Your task to perform on an android device: turn on the 12-hour format for clock Image 0: 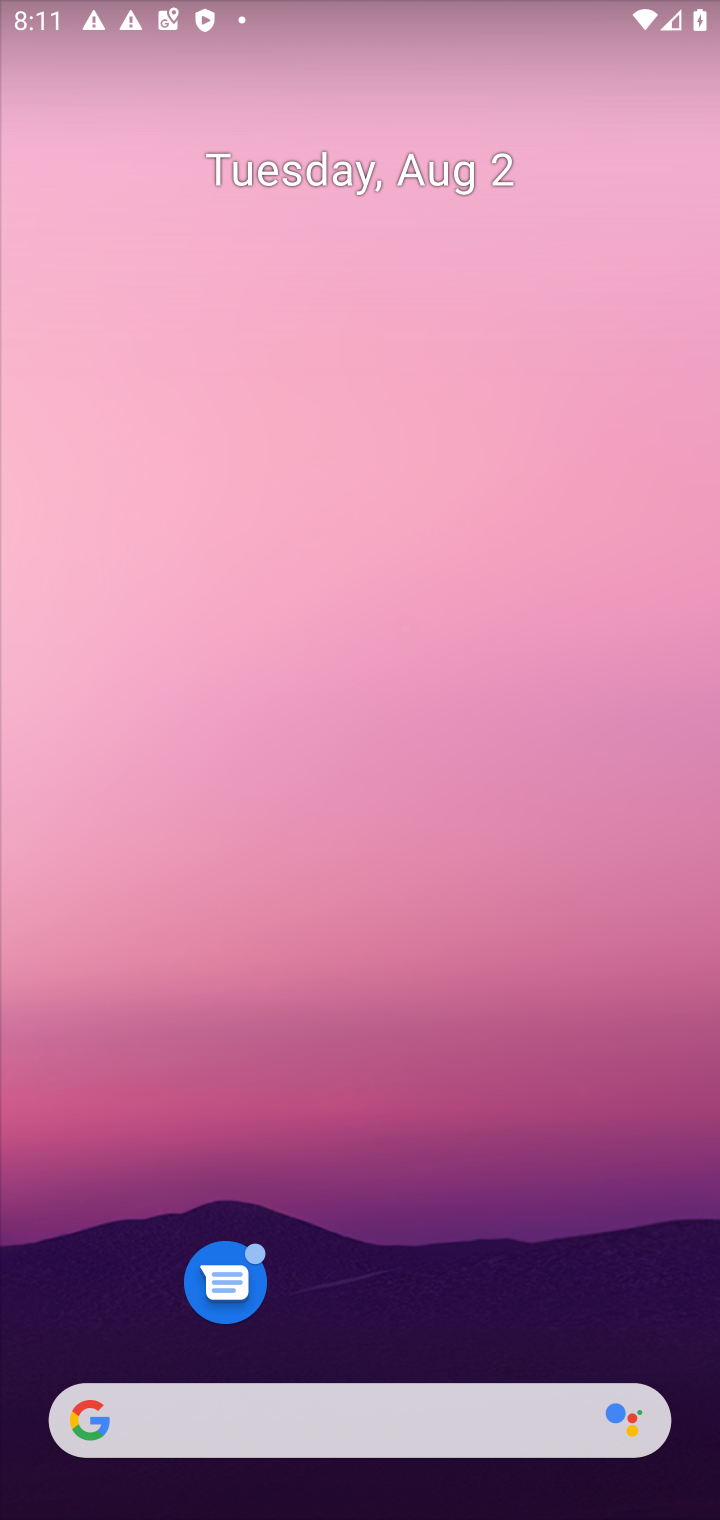
Step 0: drag from (396, 1355) to (403, 7)
Your task to perform on an android device: turn on the 12-hour format for clock Image 1: 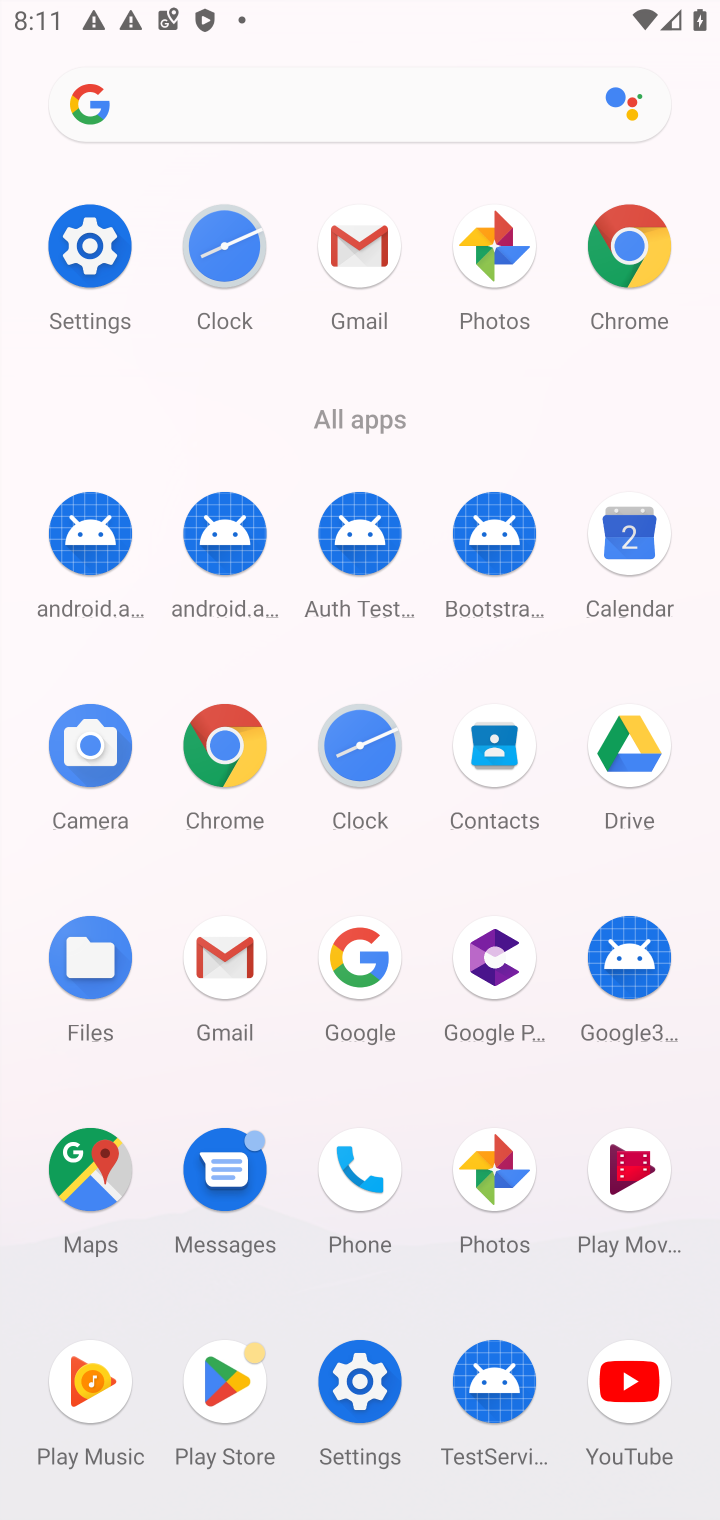
Step 1: click (339, 792)
Your task to perform on an android device: turn on the 12-hour format for clock Image 2: 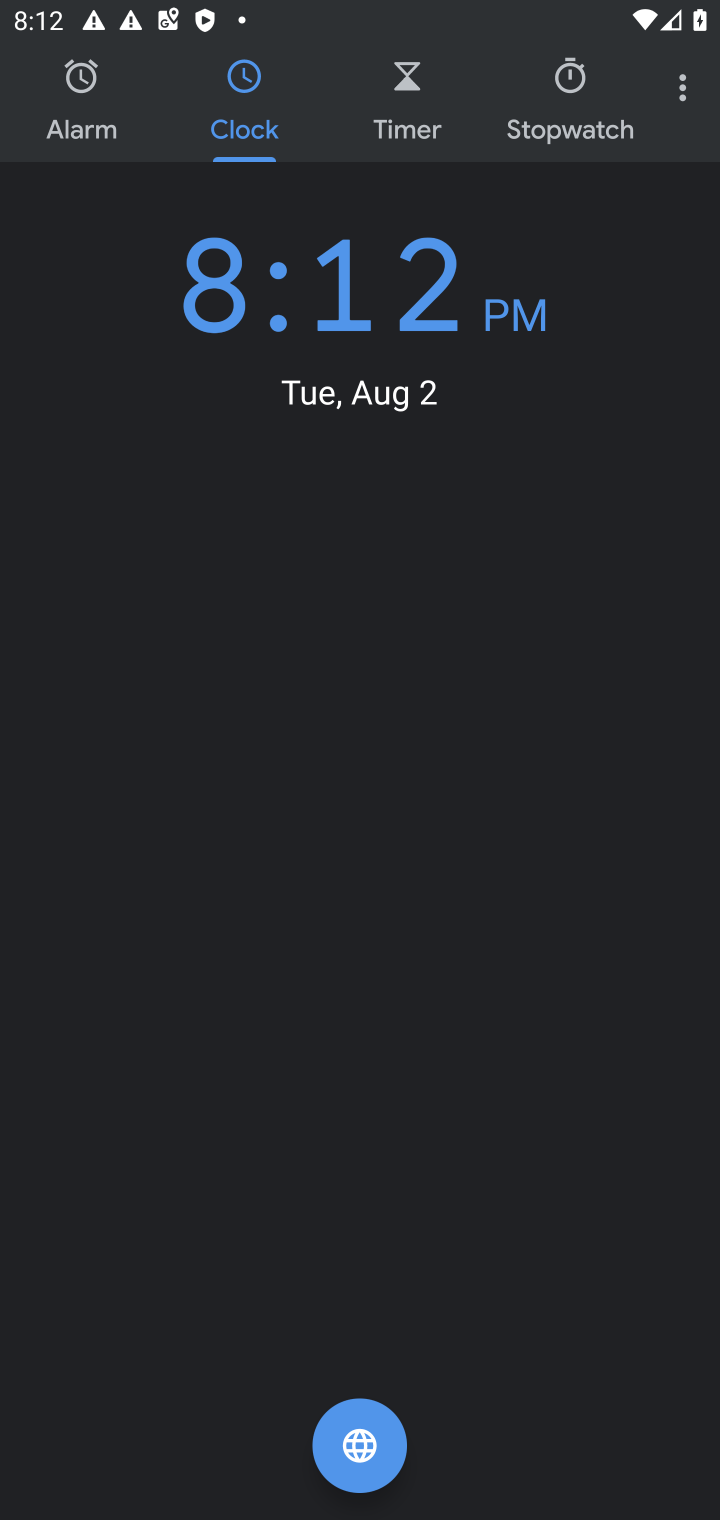
Step 2: click (668, 96)
Your task to perform on an android device: turn on the 12-hour format for clock Image 3: 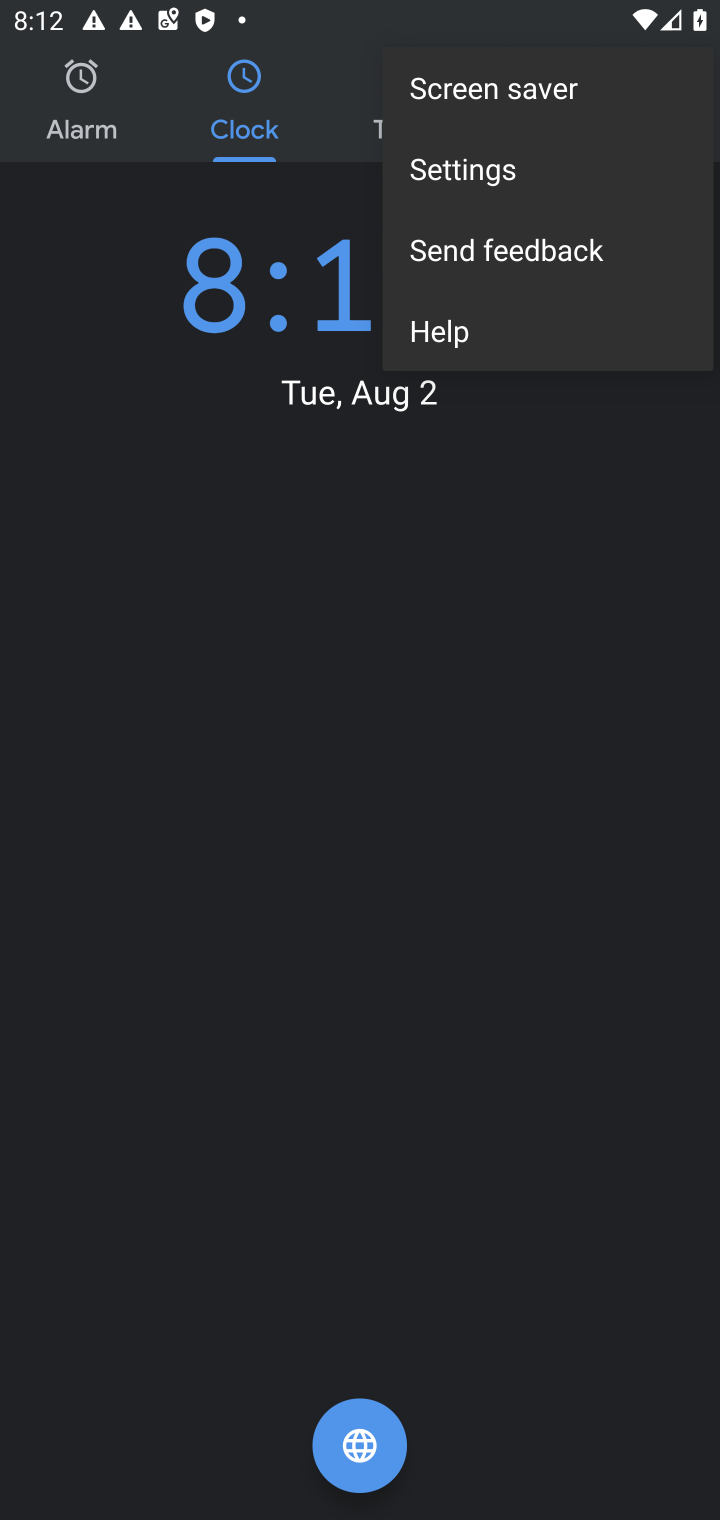
Step 3: click (501, 188)
Your task to perform on an android device: turn on the 12-hour format for clock Image 4: 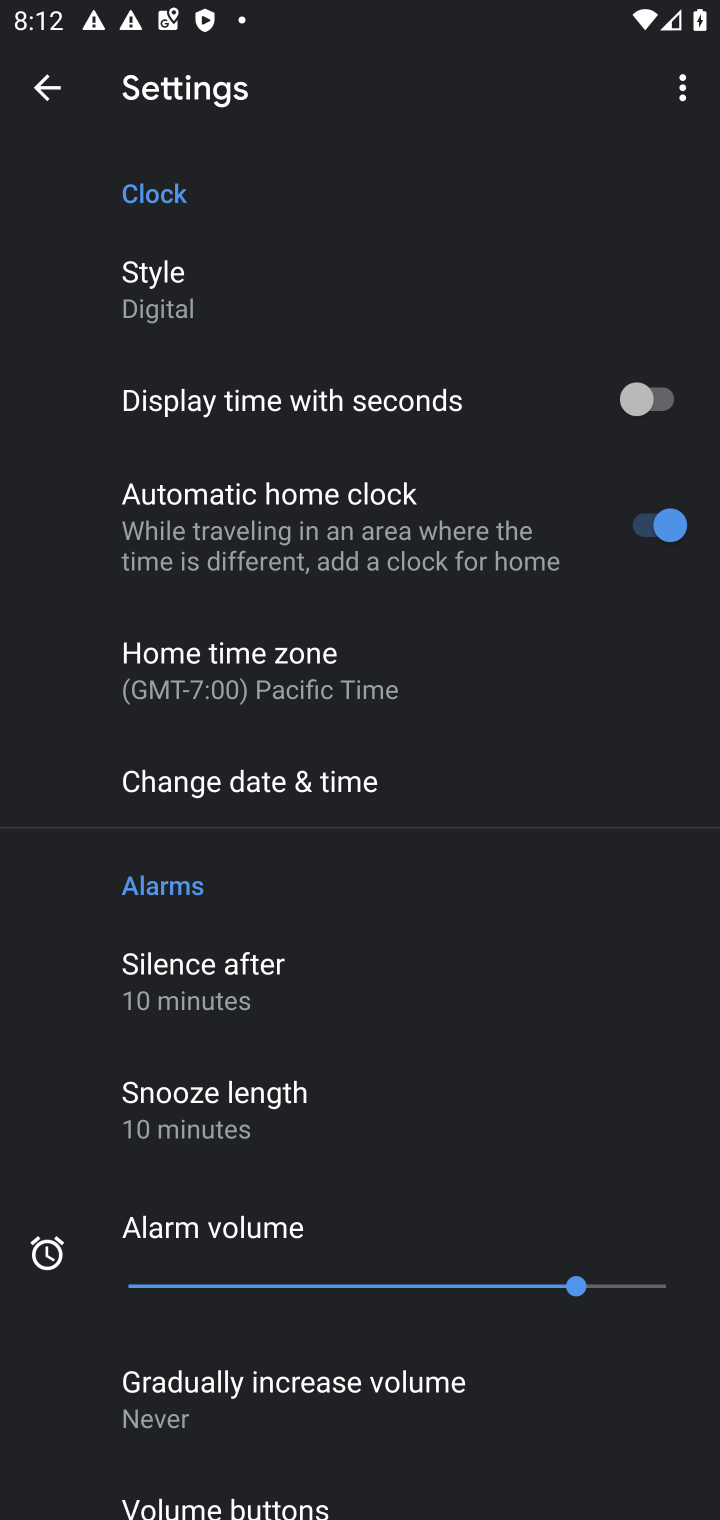
Step 4: click (172, 771)
Your task to perform on an android device: turn on the 12-hour format for clock Image 5: 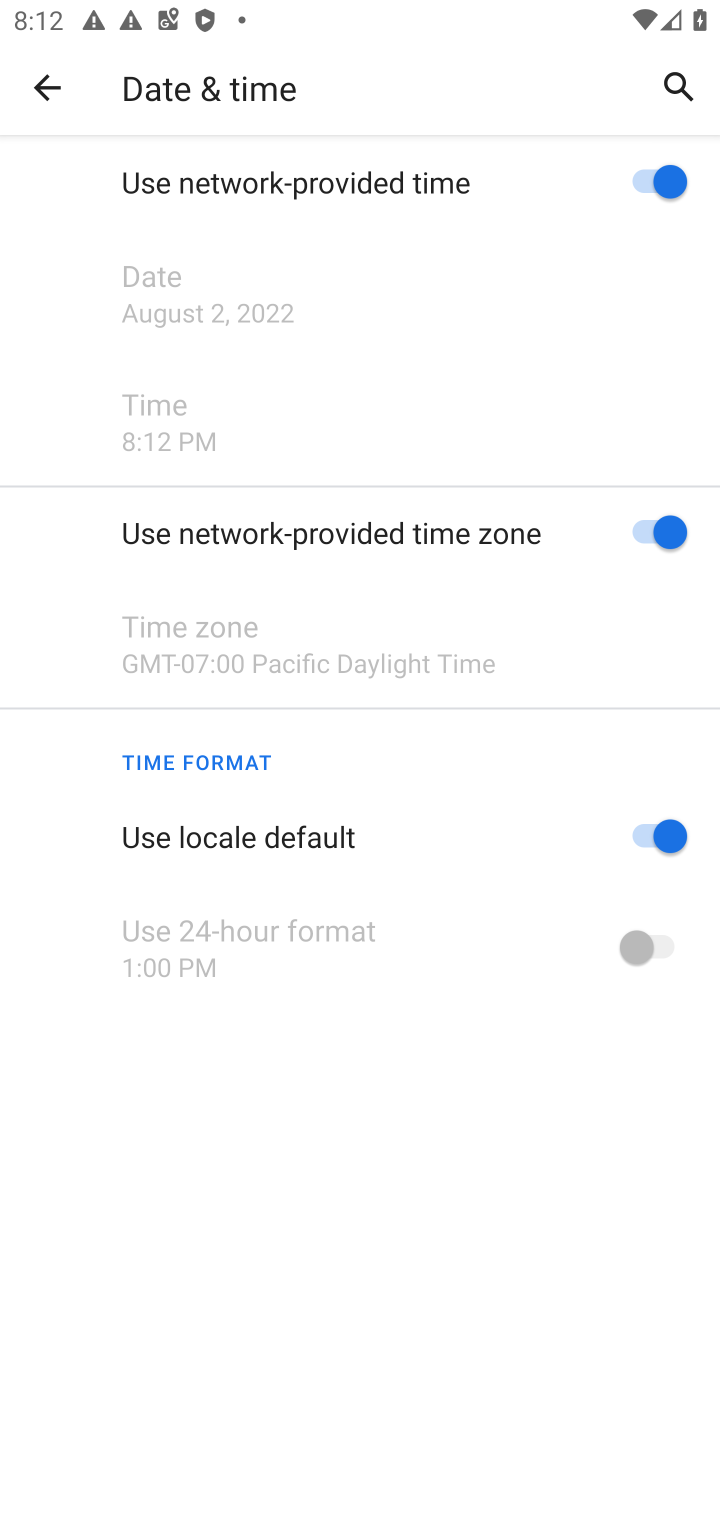
Step 5: task complete